Your task to perform on an android device: change text size in settings app Image 0: 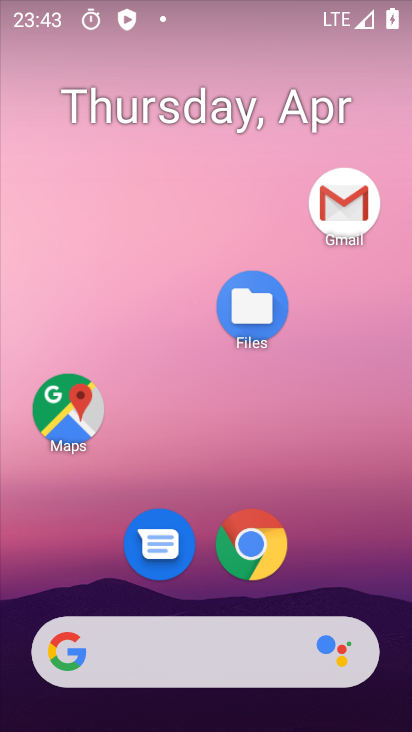
Step 0: drag from (331, 539) to (259, 145)
Your task to perform on an android device: change text size in settings app Image 1: 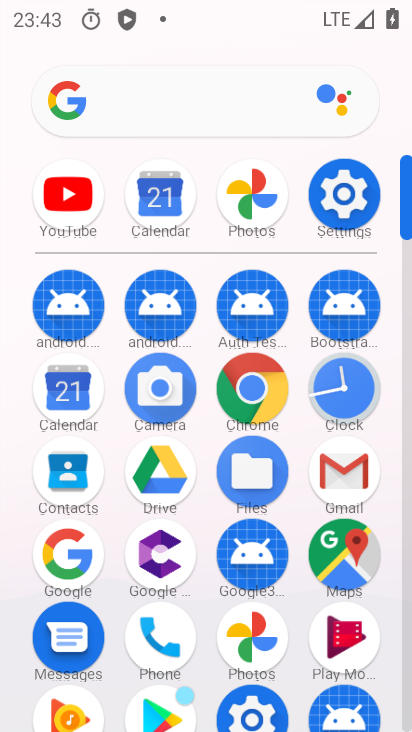
Step 1: click (337, 217)
Your task to perform on an android device: change text size in settings app Image 2: 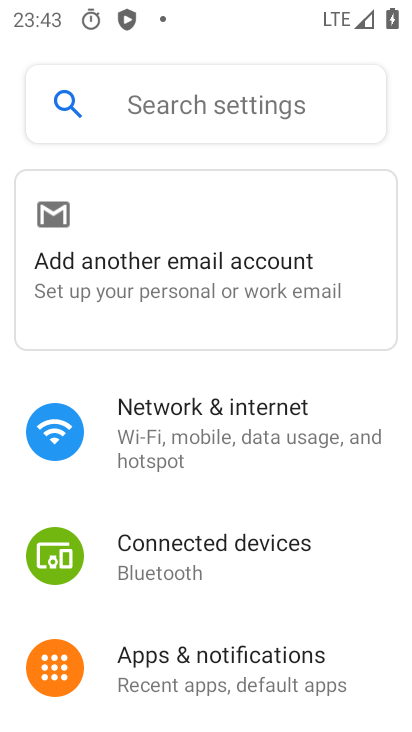
Step 2: drag from (215, 607) to (234, 257)
Your task to perform on an android device: change text size in settings app Image 3: 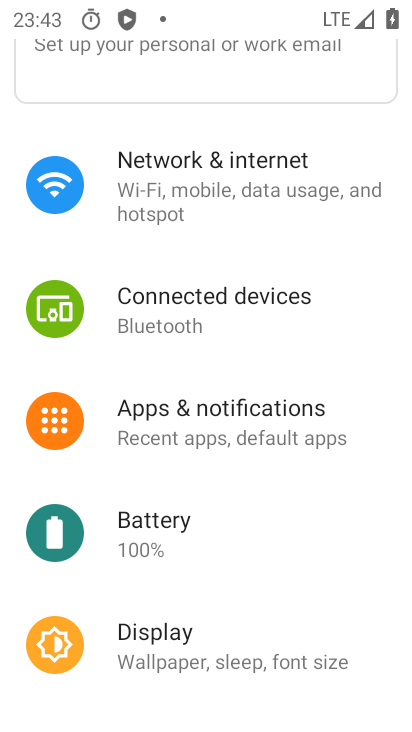
Step 3: click (234, 637)
Your task to perform on an android device: change text size in settings app Image 4: 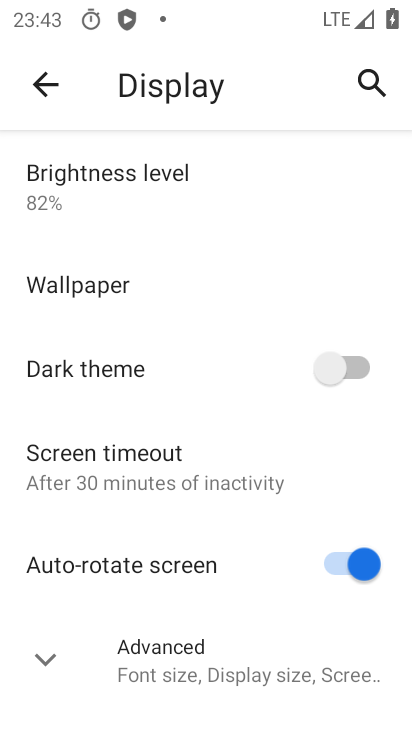
Step 4: click (192, 682)
Your task to perform on an android device: change text size in settings app Image 5: 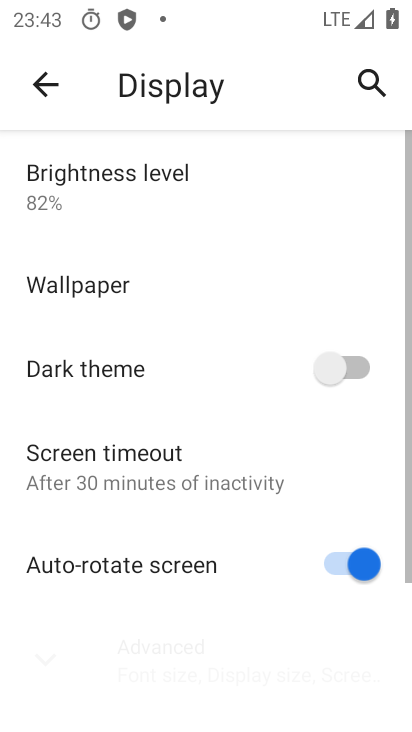
Step 5: drag from (195, 651) to (210, 416)
Your task to perform on an android device: change text size in settings app Image 6: 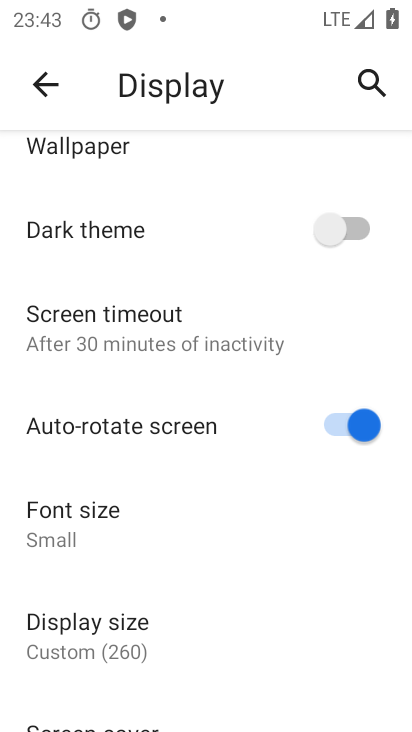
Step 6: click (133, 545)
Your task to perform on an android device: change text size in settings app Image 7: 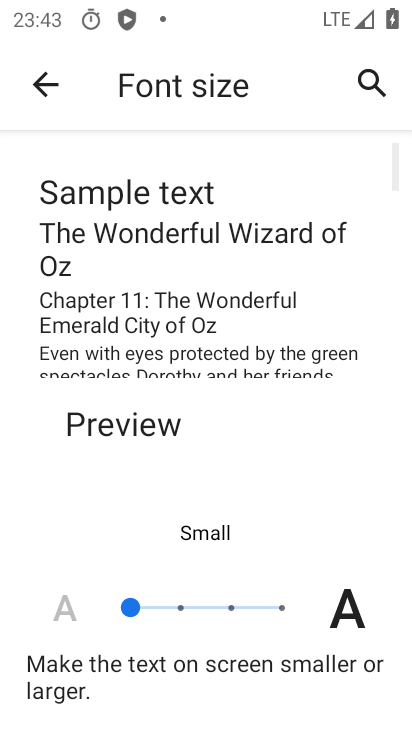
Step 7: click (175, 613)
Your task to perform on an android device: change text size in settings app Image 8: 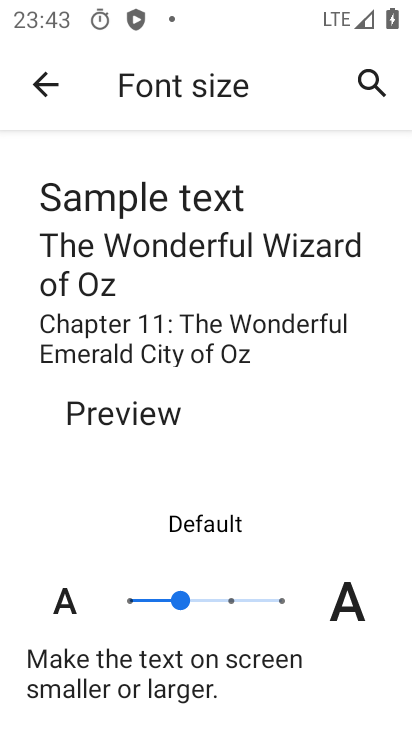
Step 8: task complete